Your task to perform on an android device: search for starred emails in the gmail app Image 0: 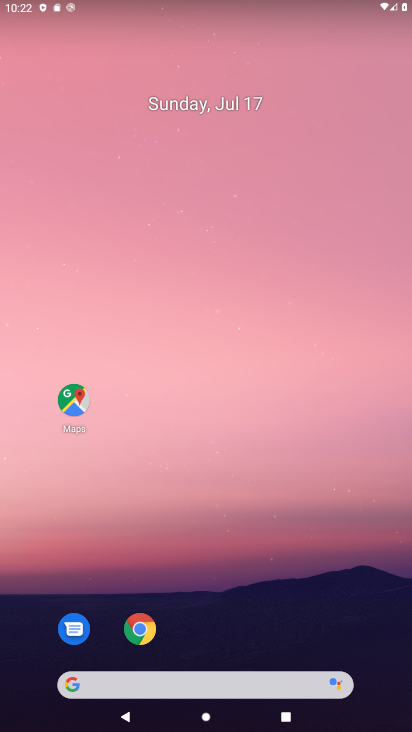
Step 0: drag from (225, 651) to (225, 97)
Your task to perform on an android device: search for starred emails in the gmail app Image 1: 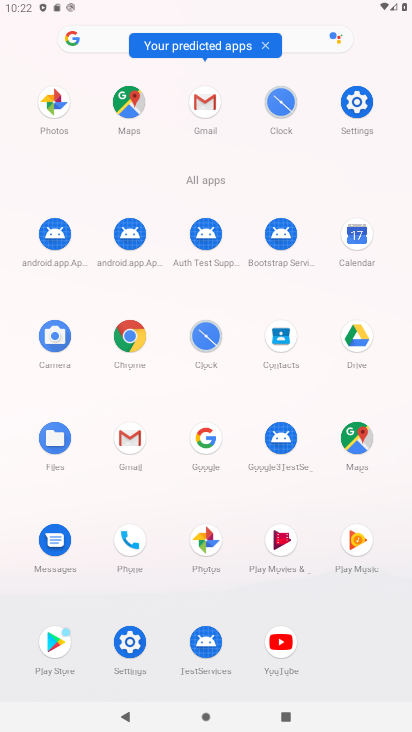
Step 1: click (131, 440)
Your task to perform on an android device: search for starred emails in the gmail app Image 2: 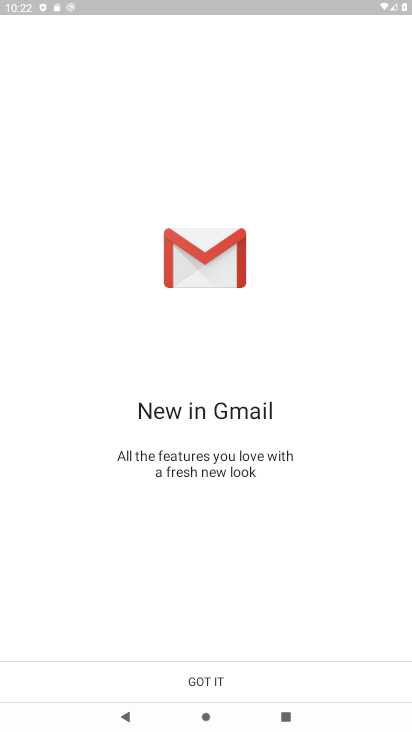
Step 2: click (214, 680)
Your task to perform on an android device: search for starred emails in the gmail app Image 3: 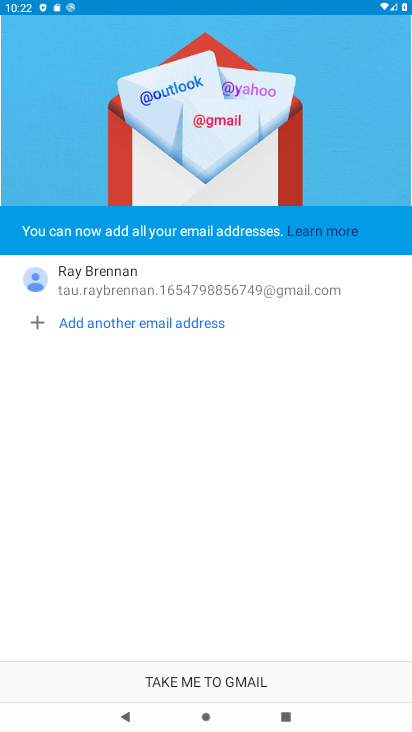
Step 3: click (243, 675)
Your task to perform on an android device: search for starred emails in the gmail app Image 4: 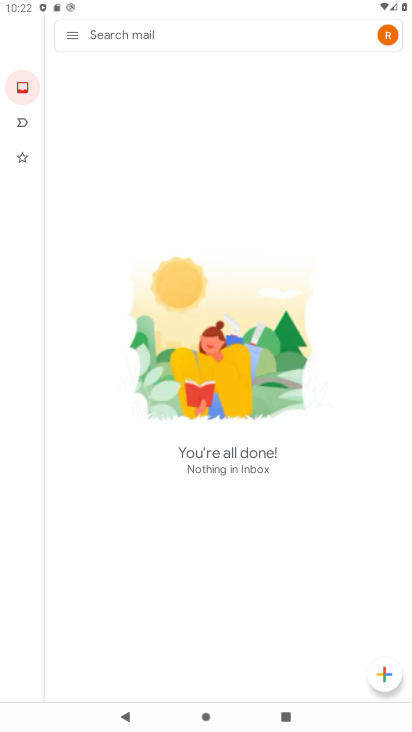
Step 4: click (65, 28)
Your task to perform on an android device: search for starred emails in the gmail app Image 5: 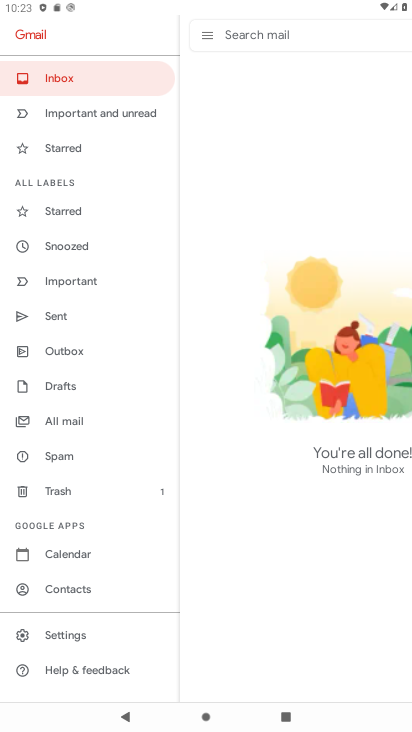
Step 5: click (66, 212)
Your task to perform on an android device: search for starred emails in the gmail app Image 6: 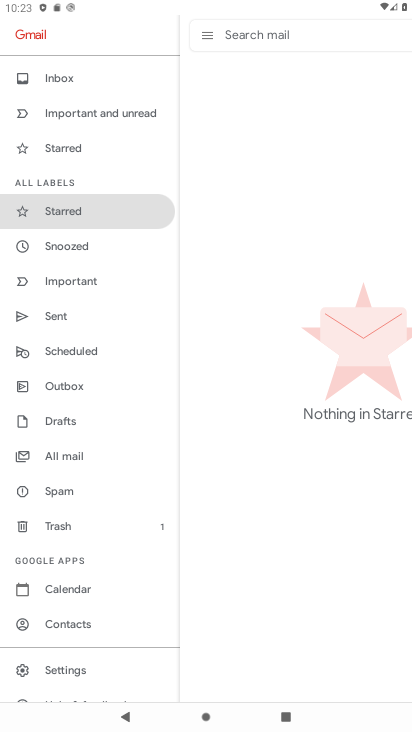
Step 6: task complete